Your task to perform on an android device: toggle notification dots Image 0: 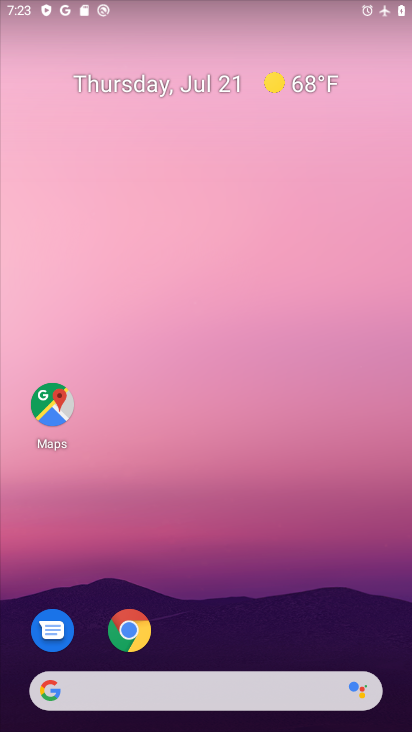
Step 0: drag from (221, 542) to (2, 171)
Your task to perform on an android device: toggle notification dots Image 1: 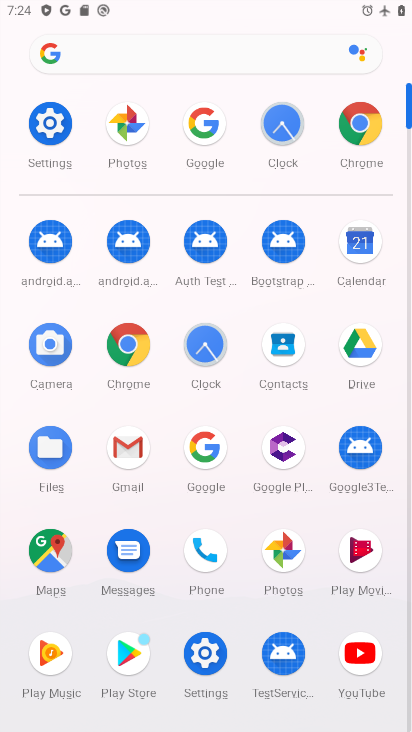
Step 1: click (50, 140)
Your task to perform on an android device: toggle notification dots Image 2: 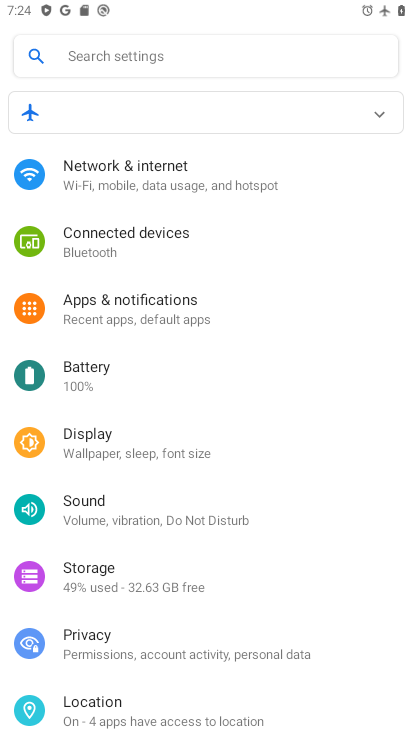
Step 2: click (117, 316)
Your task to perform on an android device: toggle notification dots Image 3: 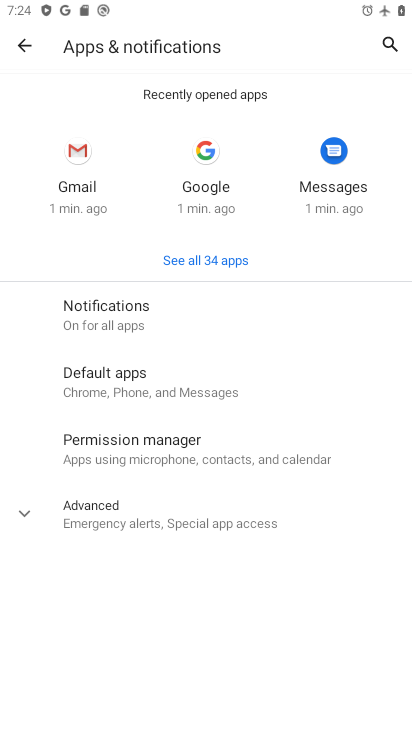
Step 3: click (115, 304)
Your task to perform on an android device: toggle notification dots Image 4: 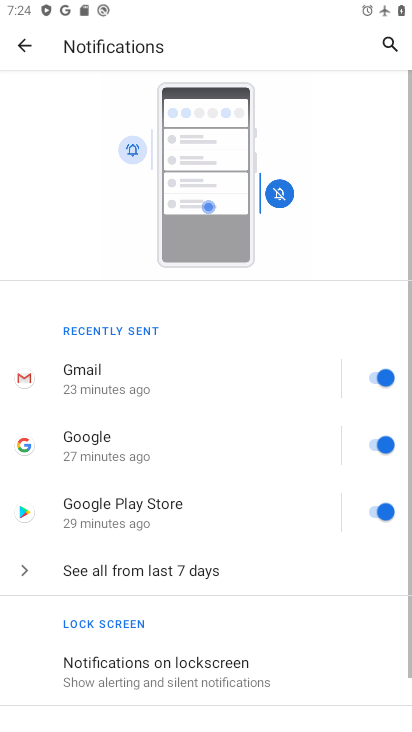
Step 4: drag from (174, 550) to (192, 66)
Your task to perform on an android device: toggle notification dots Image 5: 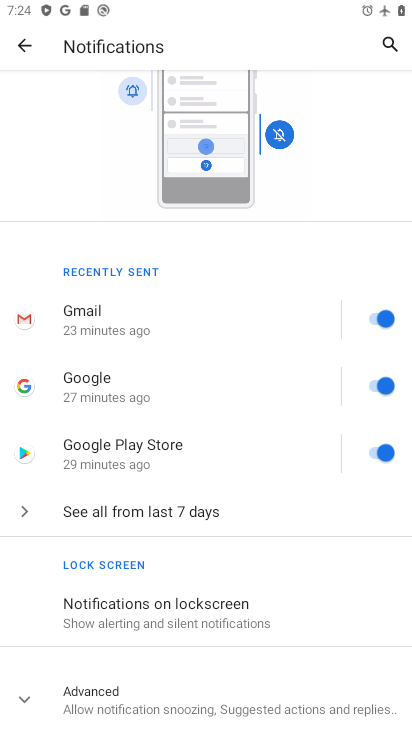
Step 5: click (188, 708)
Your task to perform on an android device: toggle notification dots Image 6: 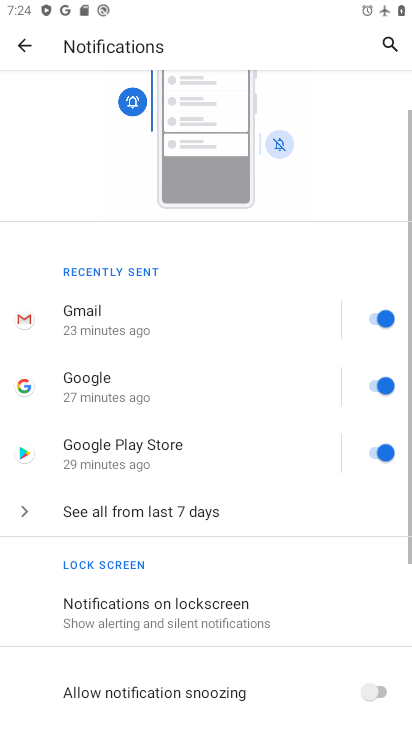
Step 6: drag from (191, 686) to (250, 283)
Your task to perform on an android device: toggle notification dots Image 7: 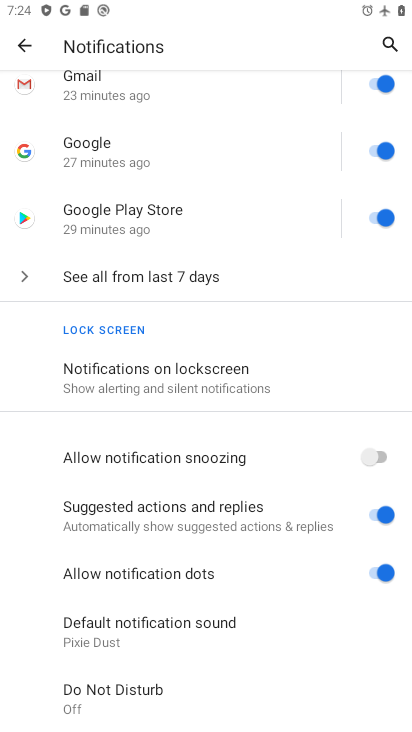
Step 7: click (382, 577)
Your task to perform on an android device: toggle notification dots Image 8: 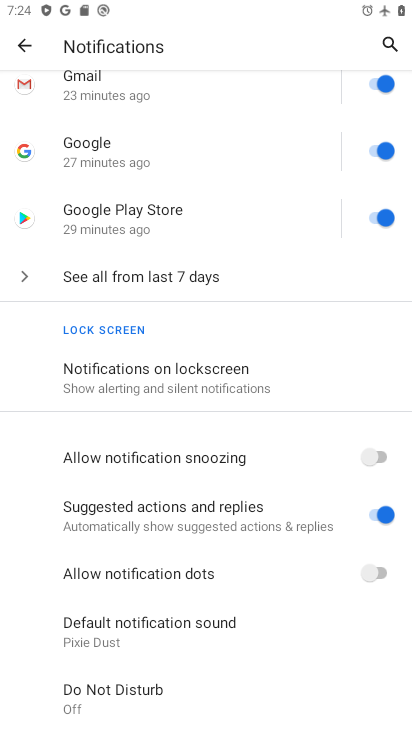
Step 8: task complete